Your task to perform on an android device: Show me popular games on the Play Store Image 0: 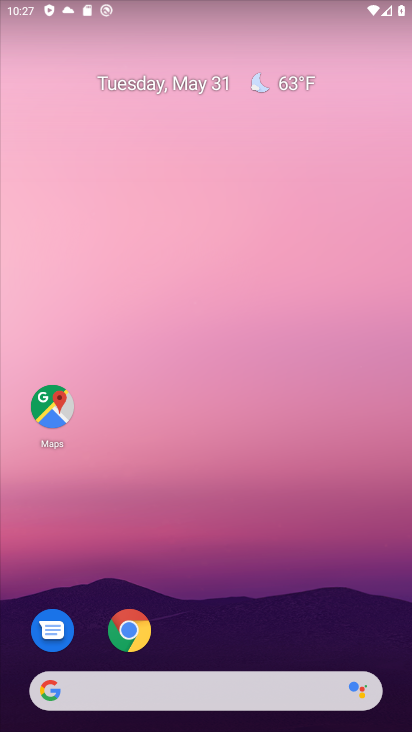
Step 0: drag from (236, 606) to (188, 70)
Your task to perform on an android device: Show me popular games on the Play Store Image 1: 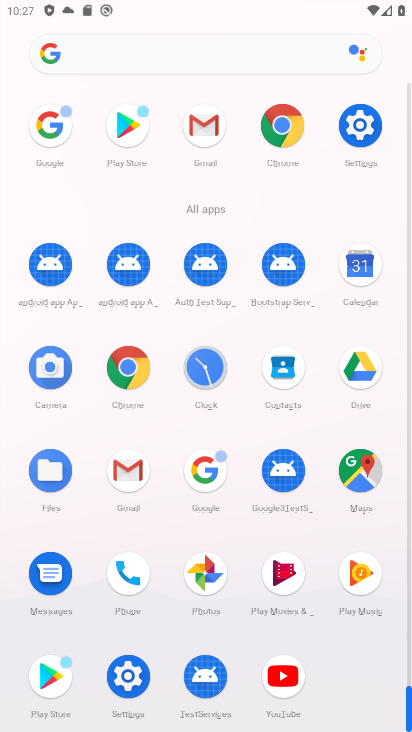
Step 1: click (49, 680)
Your task to perform on an android device: Show me popular games on the Play Store Image 2: 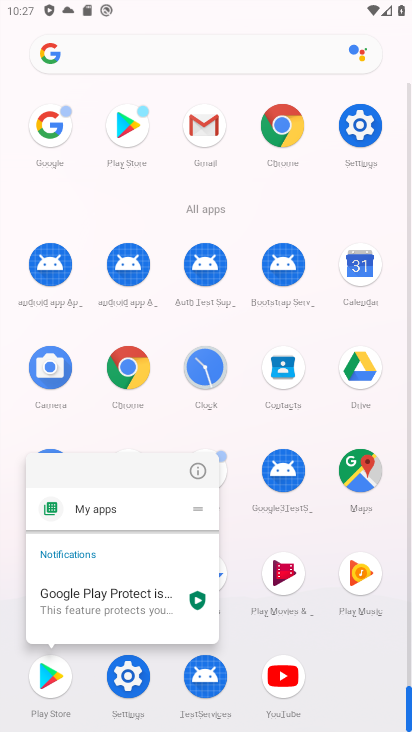
Step 2: click (58, 702)
Your task to perform on an android device: Show me popular games on the Play Store Image 3: 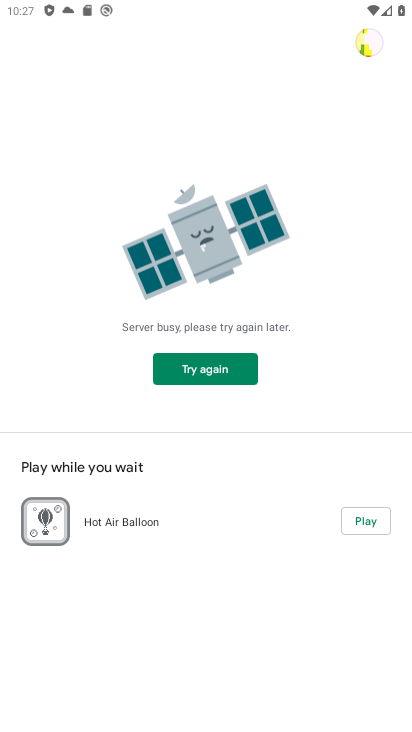
Step 3: task complete